Your task to perform on an android device: Add razer huntsman to the cart on walmart Image 0: 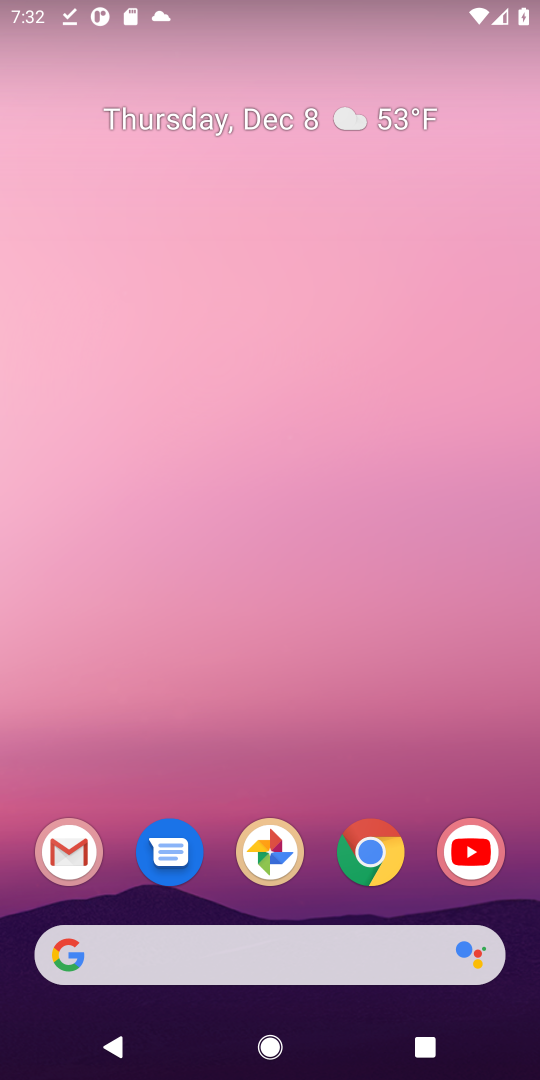
Step 0: click (277, 943)
Your task to perform on an android device: Add razer huntsman to the cart on walmart Image 1: 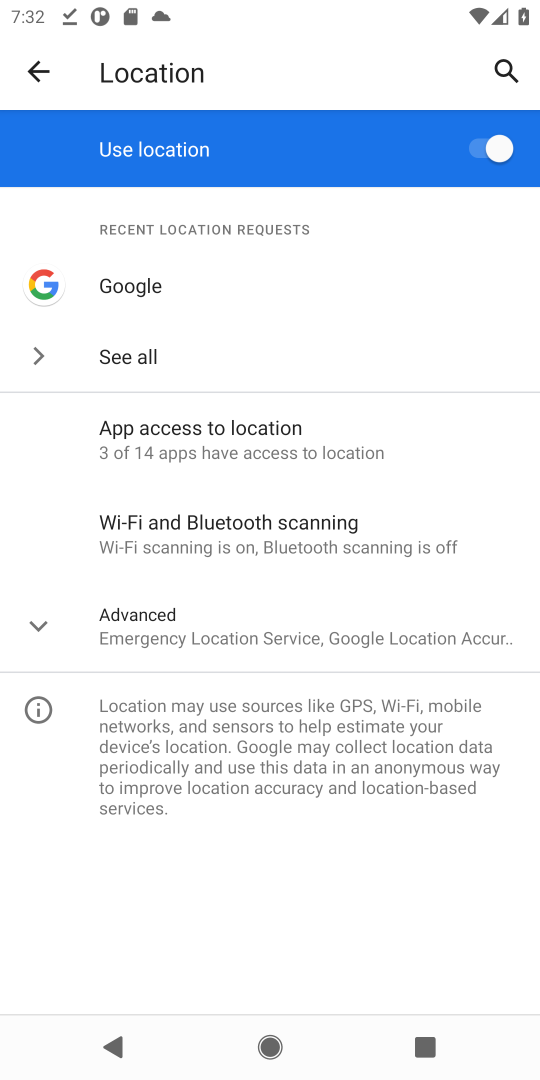
Step 1: press home button
Your task to perform on an android device: Add razer huntsman to the cart on walmart Image 2: 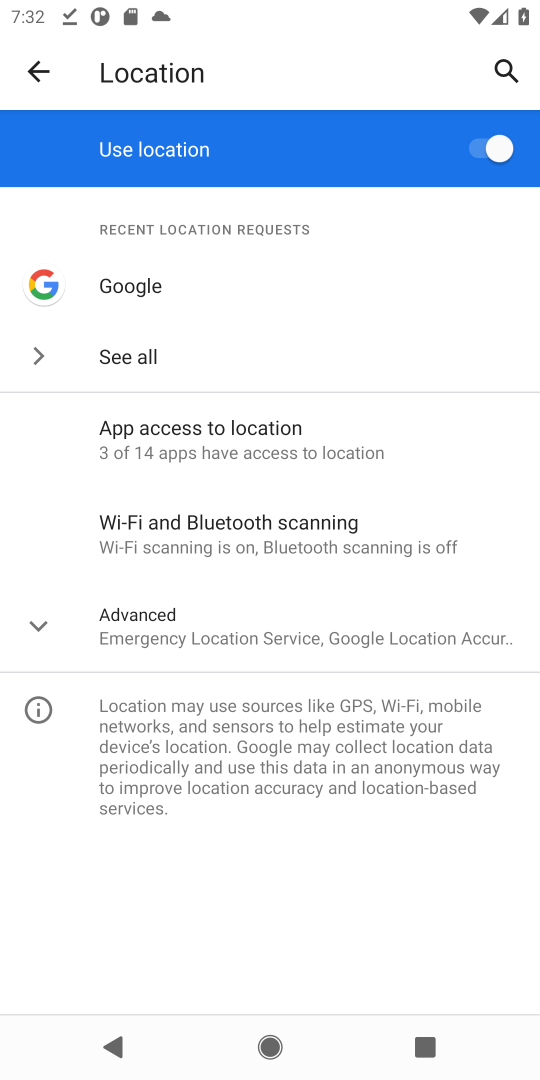
Step 2: type "walma"
Your task to perform on an android device: Add razer huntsman to the cart on walmart Image 3: 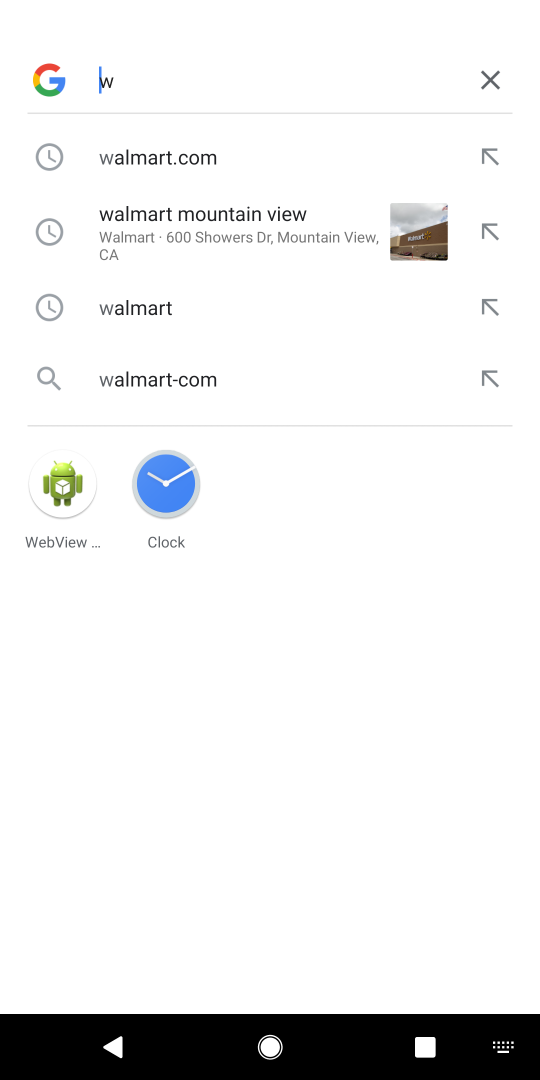
Step 3: click (181, 164)
Your task to perform on an android device: Add razer huntsman to the cart on walmart Image 4: 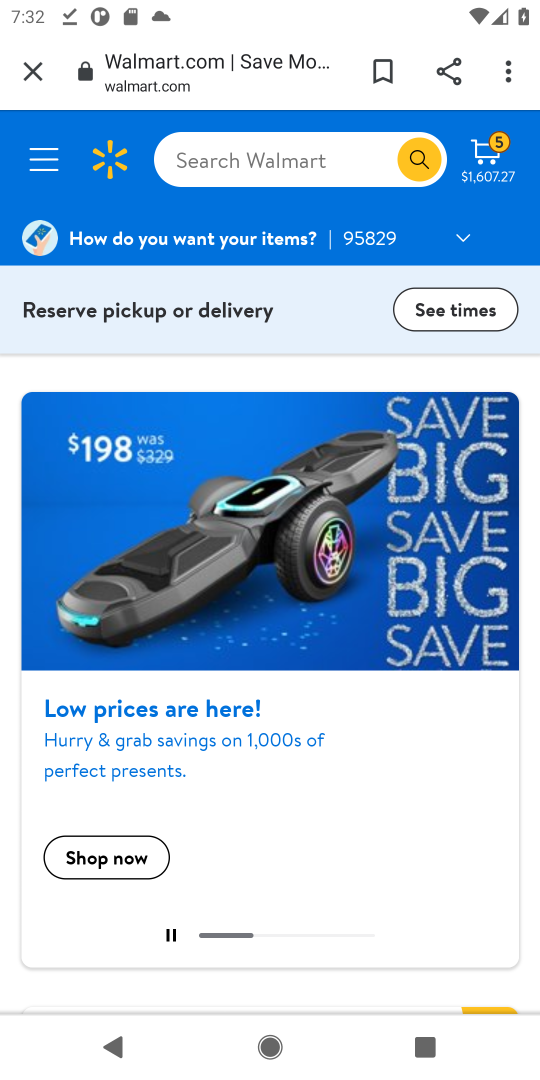
Step 4: click (268, 171)
Your task to perform on an android device: Add razer huntsman to the cart on walmart Image 5: 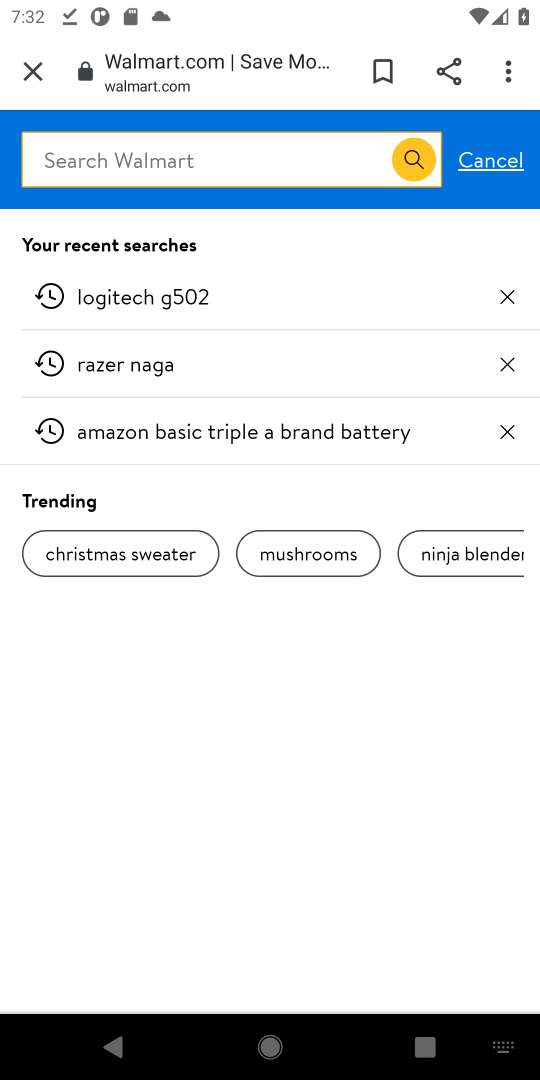
Step 5: type "razer huntsman"
Your task to perform on an android device: Add razer huntsman to the cart on walmart Image 6: 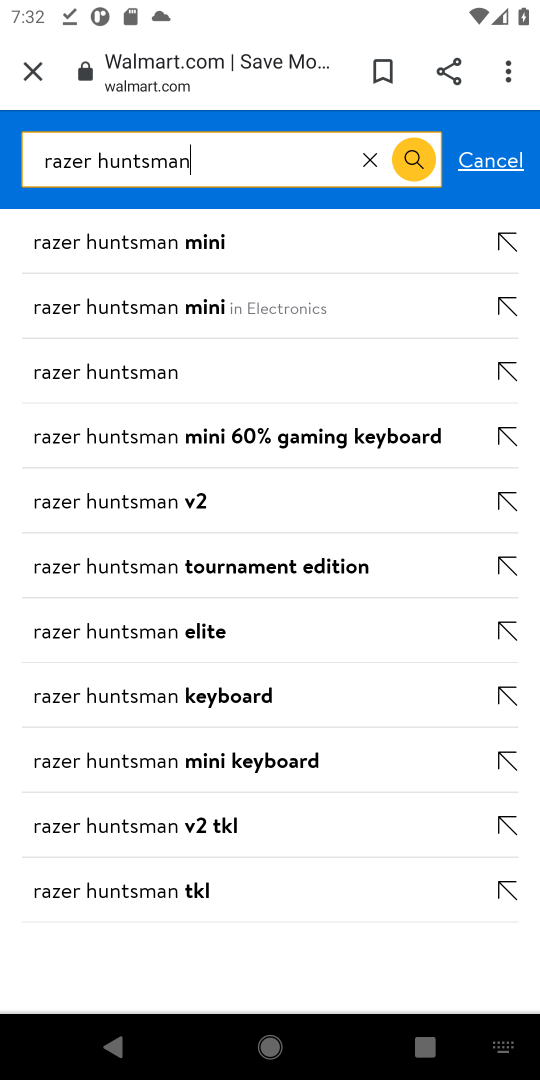
Step 6: click (418, 165)
Your task to perform on an android device: Add razer huntsman to the cart on walmart Image 7: 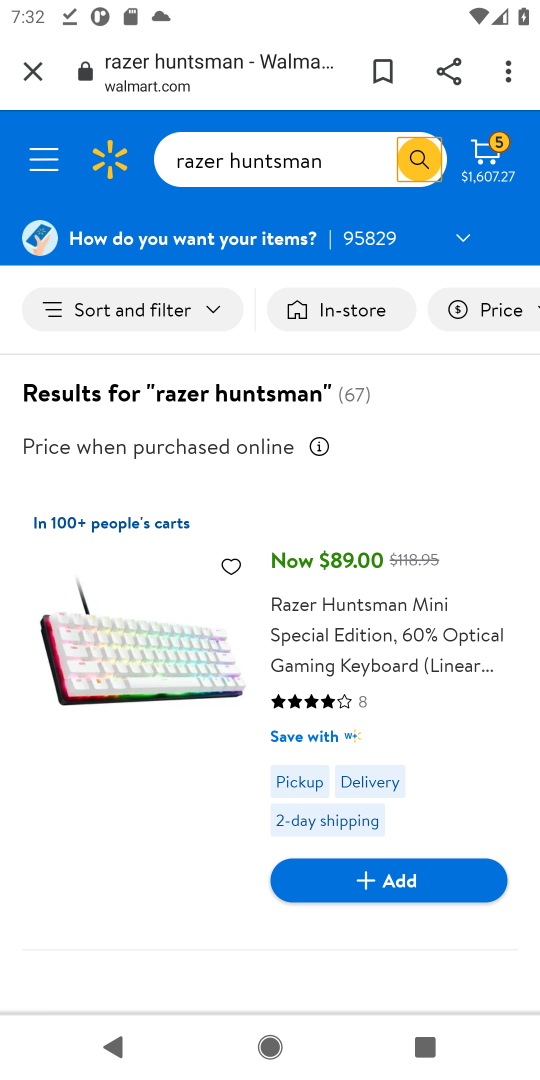
Step 7: click (312, 908)
Your task to perform on an android device: Add razer huntsman to the cart on walmart Image 8: 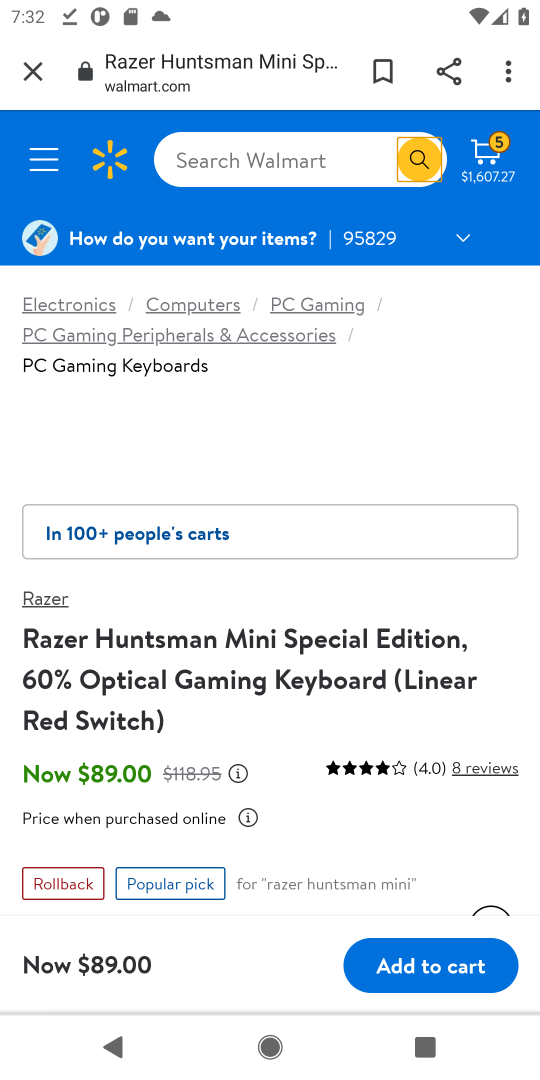
Step 8: click (376, 953)
Your task to perform on an android device: Add razer huntsman to the cart on walmart Image 9: 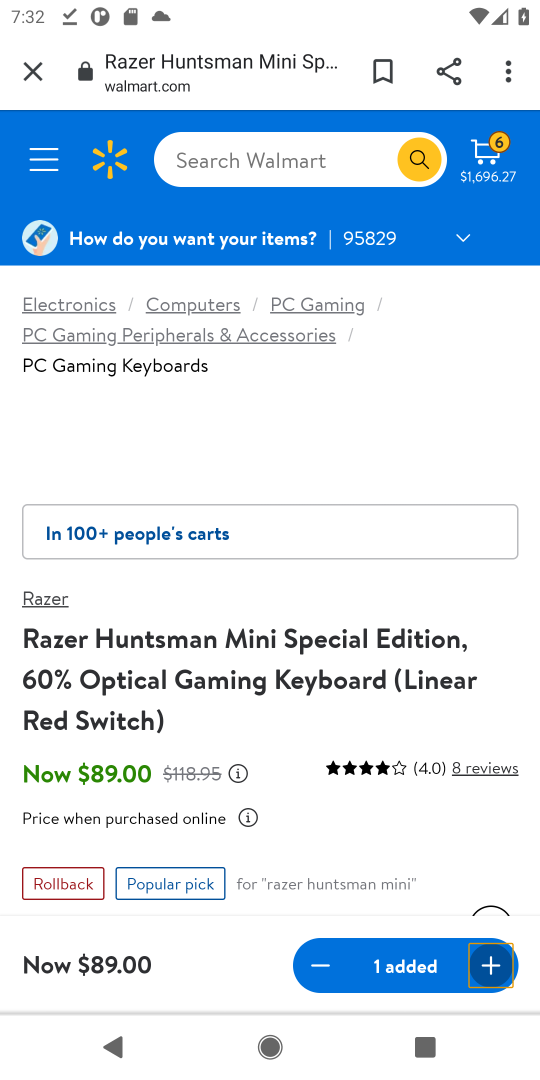
Step 9: task complete